Your task to perform on an android device: Go to settings Image 0: 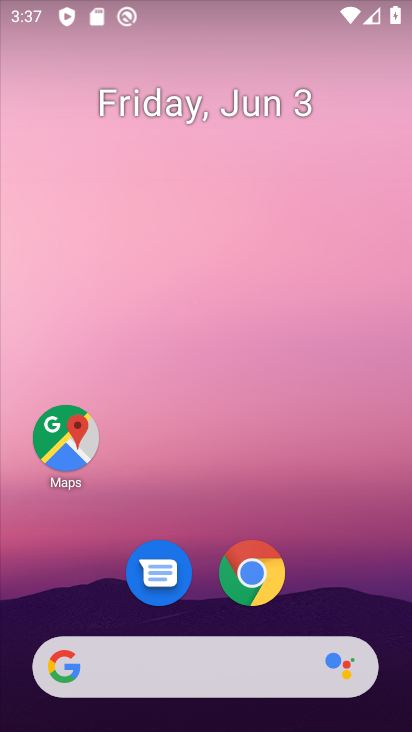
Step 0: drag from (372, 603) to (348, 153)
Your task to perform on an android device: Go to settings Image 1: 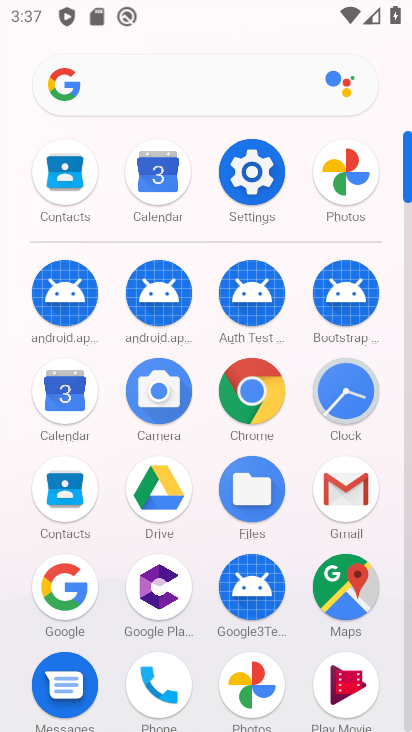
Step 1: click (260, 174)
Your task to perform on an android device: Go to settings Image 2: 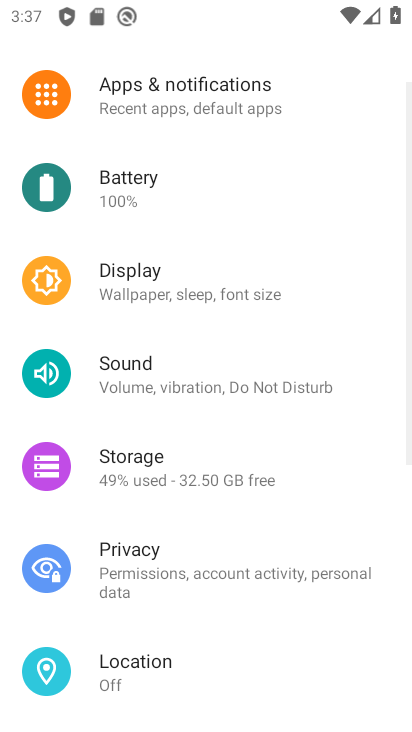
Step 2: task complete